Your task to perform on an android device: Show me the alarms in the clock app Image 0: 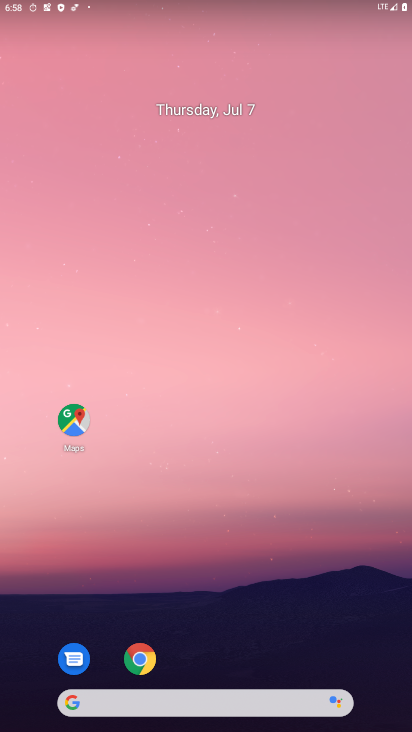
Step 0: drag from (372, 671) to (294, 32)
Your task to perform on an android device: Show me the alarms in the clock app Image 1: 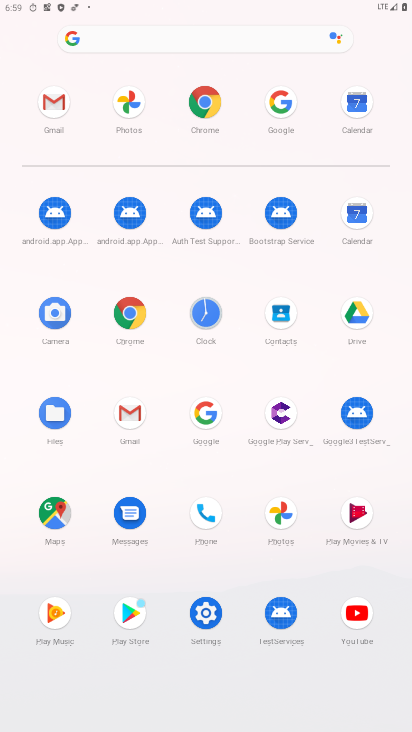
Step 1: click (211, 309)
Your task to perform on an android device: Show me the alarms in the clock app Image 2: 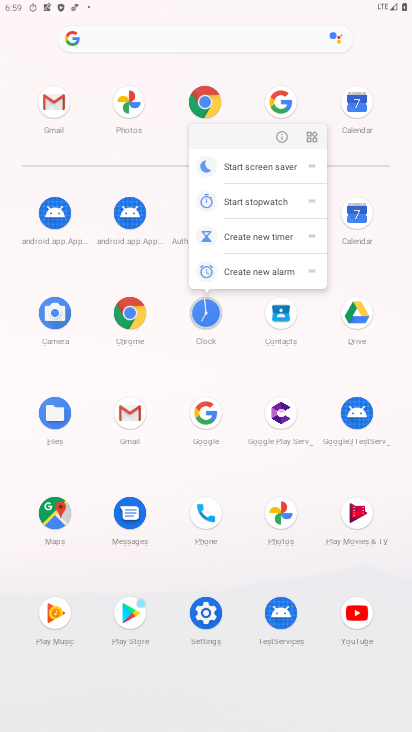
Step 2: click (212, 310)
Your task to perform on an android device: Show me the alarms in the clock app Image 3: 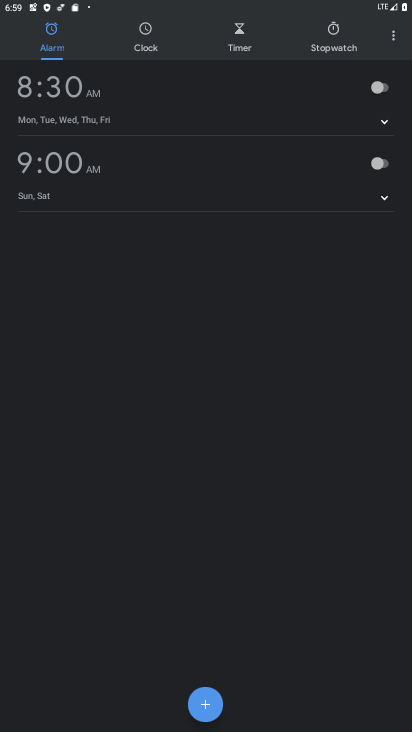
Step 3: task complete